Your task to perform on an android device: move a message to another label in the gmail app Image 0: 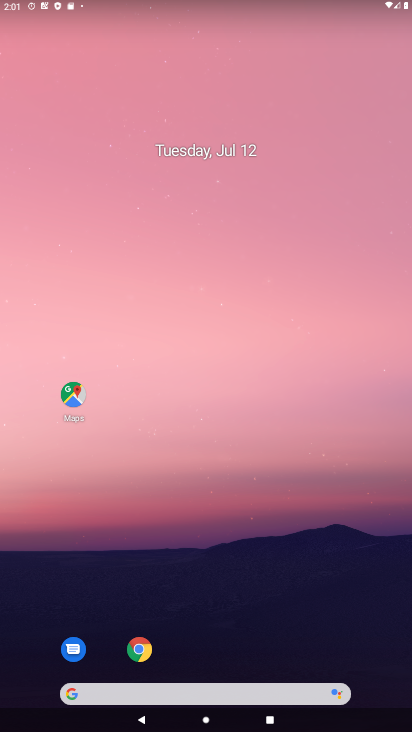
Step 0: drag from (383, 676) to (215, 12)
Your task to perform on an android device: move a message to another label in the gmail app Image 1: 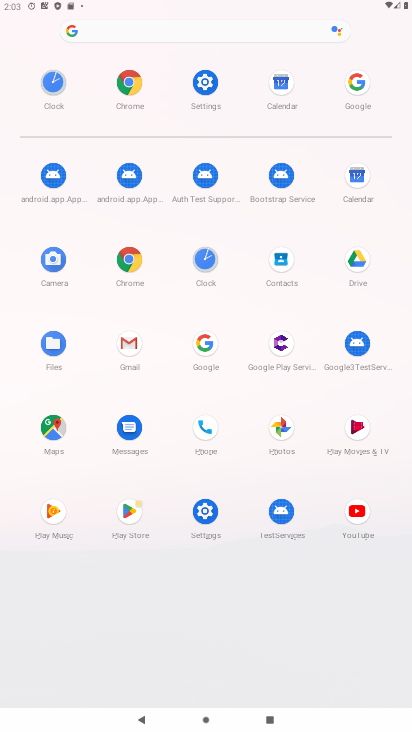
Step 1: click (133, 337)
Your task to perform on an android device: move a message to another label in the gmail app Image 2: 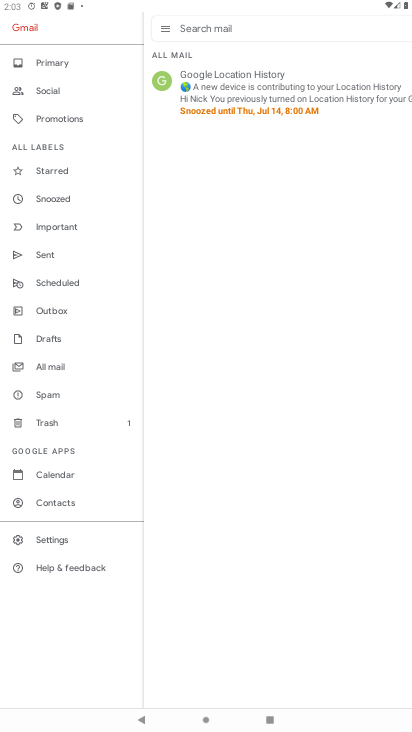
Step 2: task complete